Your task to perform on an android device: Open wifi settings Image 0: 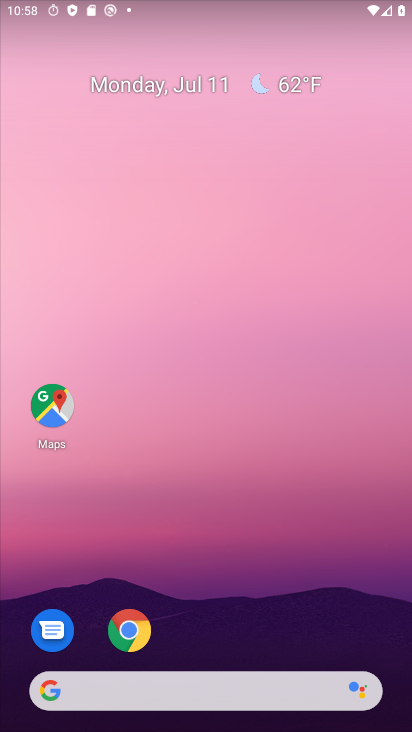
Step 0: drag from (288, 659) to (255, 53)
Your task to perform on an android device: Open wifi settings Image 1: 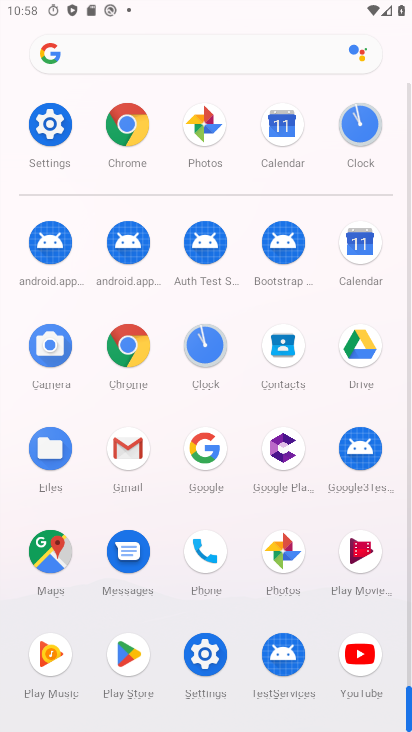
Step 1: click (52, 125)
Your task to perform on an android device: Open wifi settings Image 2: 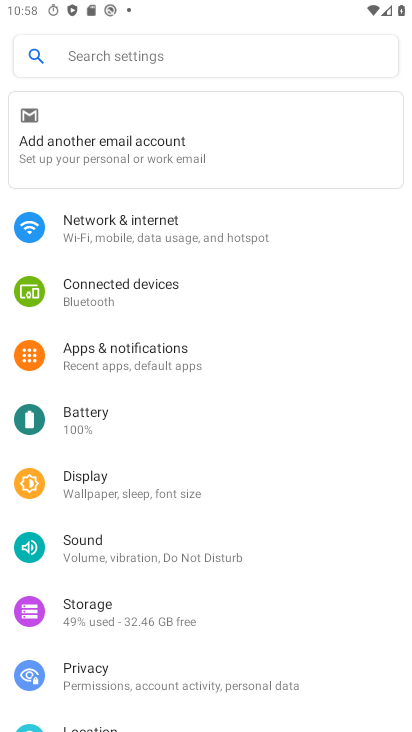
Step 2: click (102, 217)
Your task to perform on an android device: Open wifi settings Image 3: 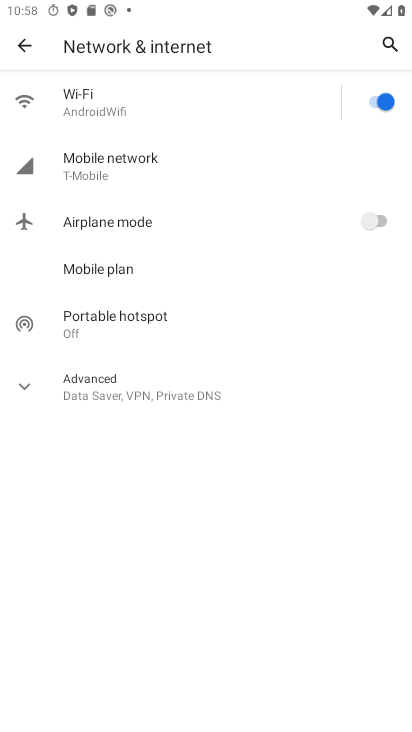
Step 3: click (89, 101)
Your task to perform on an android device: Open wifi settings Image 4: 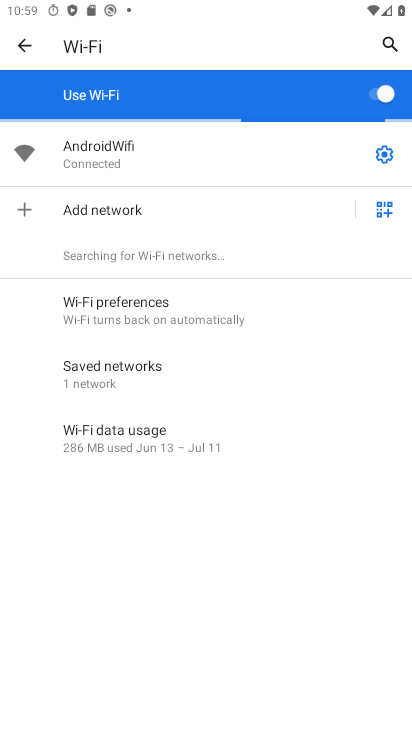
Step 4: task complete